Your task to perform on an android device: turn off smart reply in the gmail app Image 0: 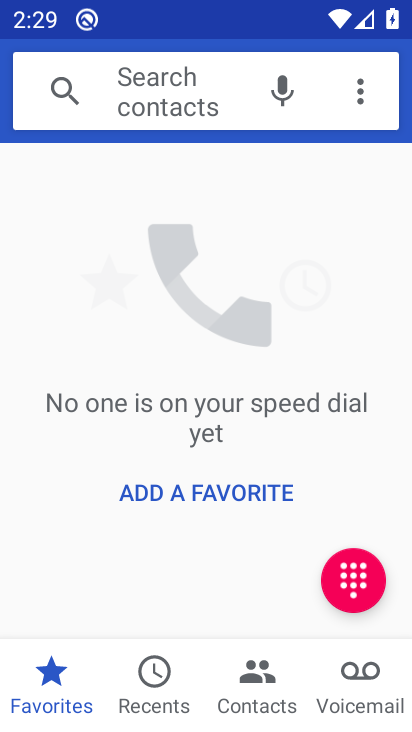
Step 0: press home button
Your task to perform on an android device: turn off smart reply in the gmail app Image 1: 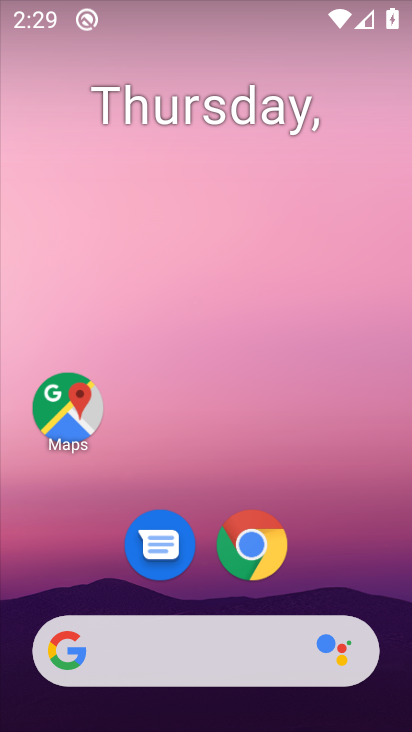
Step 1: drag from (184, 610) to (279, 109)
Your task to perform on an android device: turn off smart reply in the gmail app Image 2: 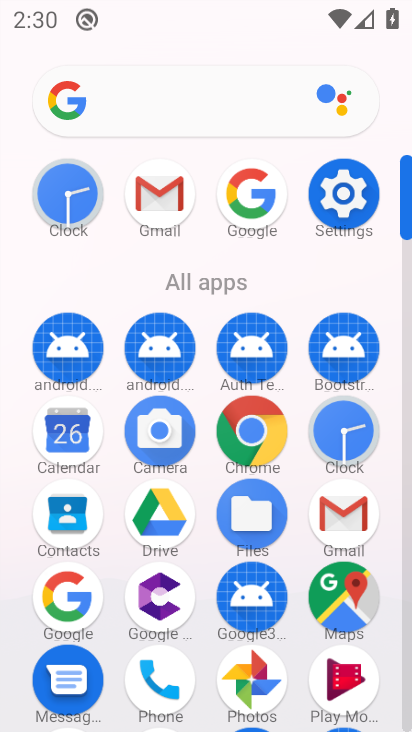
Step 2: click (170, 212)
Your task to perform on an android device: turn off smart reply in the gmail app Image 3: 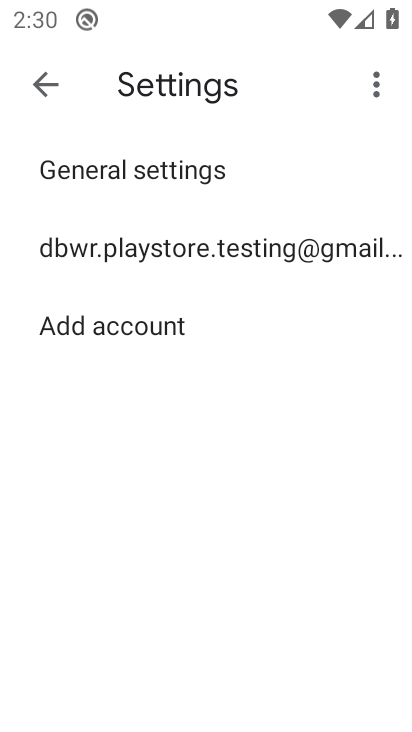
Step 3: click (169, 249)
Your task to perform on an android device: turn off smart reply in the gmail app Image 4: 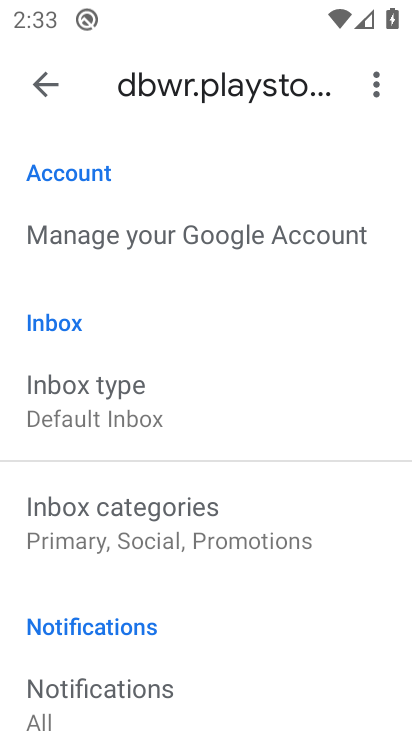
Step 4: press home button
Your task to perform on an android device: turn off smart reply in the gmail app Image 5: 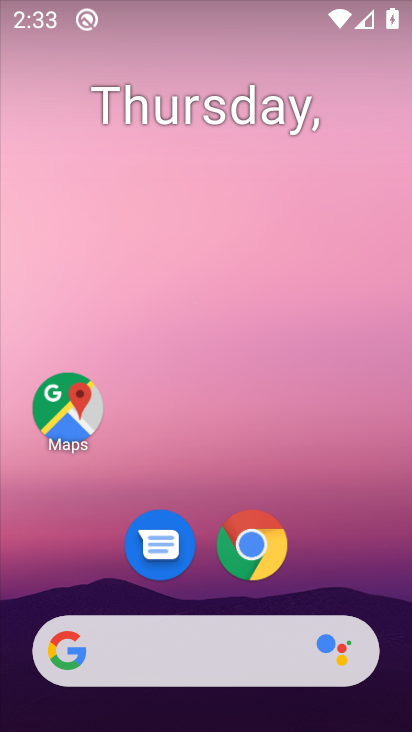
Step 5: drag from (229, 612) to (214, 125)
Your task to perform on an android device: turn off smart reply in the gmail app Image 6: 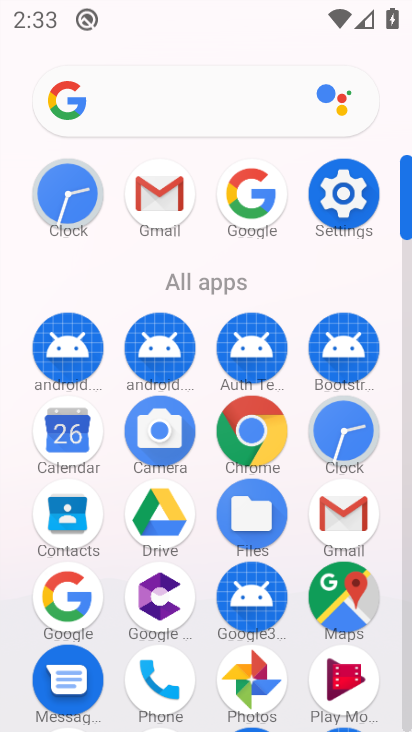
Step 6: click (351, 516)
Your task to perform on an android device: turn off smart reply in the gmail app Image 7: 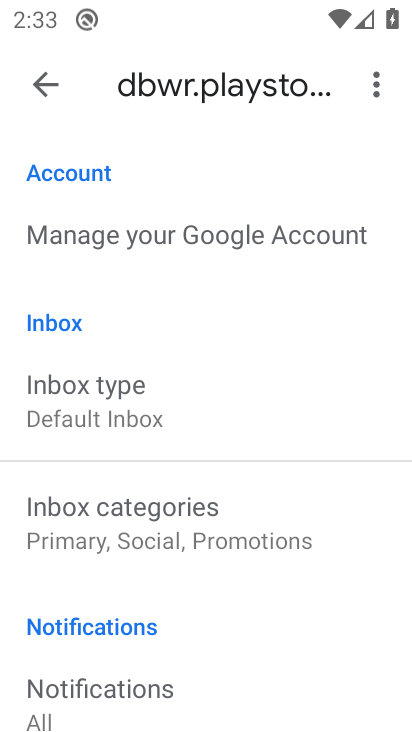
Step 7: drag from (188, 583) to (227, 85)
Your task to perform on an android device: turn off smart reply in the gmail app Image 8: 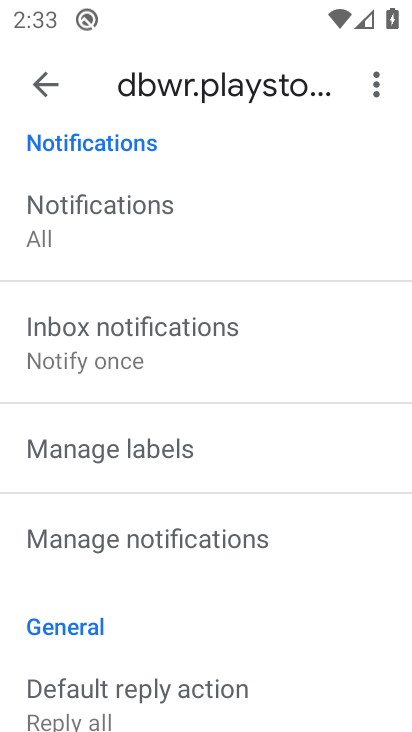
Step 8: drag from (150, 536) to (205, 118)
Your task to perform on an android device: turn off smart reply in the gmail app Image 9: 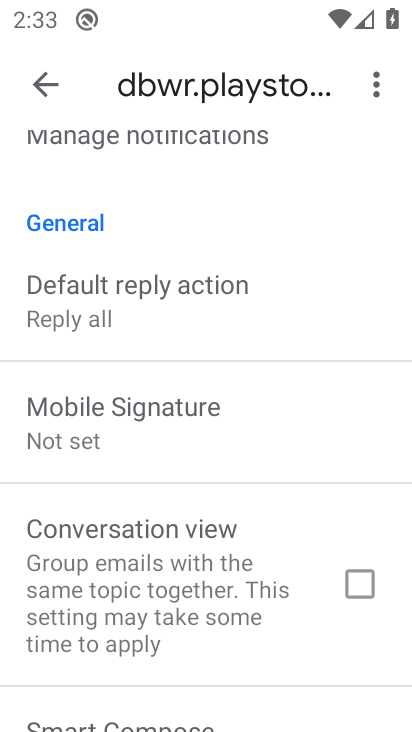
Step 9: drag from (164, 615) to (196, 182)
Your task to perform on an android device: turn off smart reply in the gmail app Image 10: 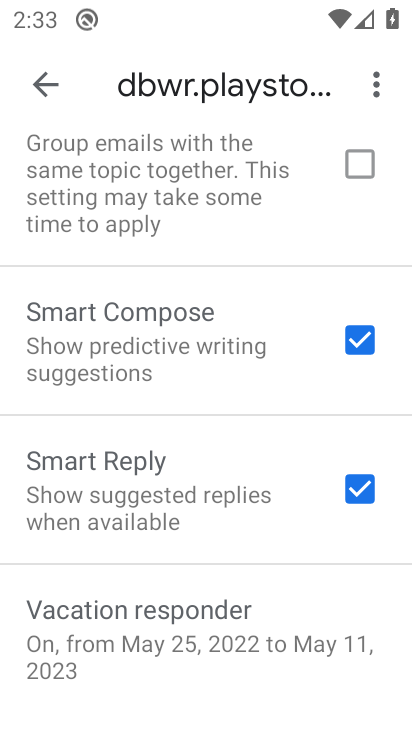
Step 10: click (360, 483)
Your task to perform on an android device: turn off smart reply in the gmail app Image 11: 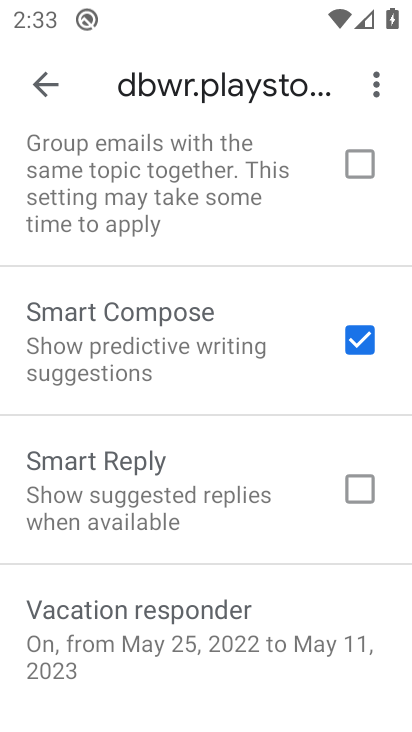
Step 11: task complete